Your task to perform on an android device: What's the weather? Image 0: 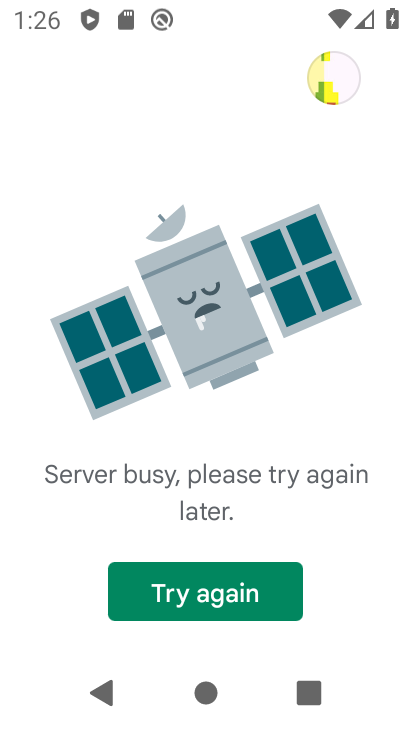
Step 0: press home button
Your task to perform on an android device: What's the weather? Image 1: 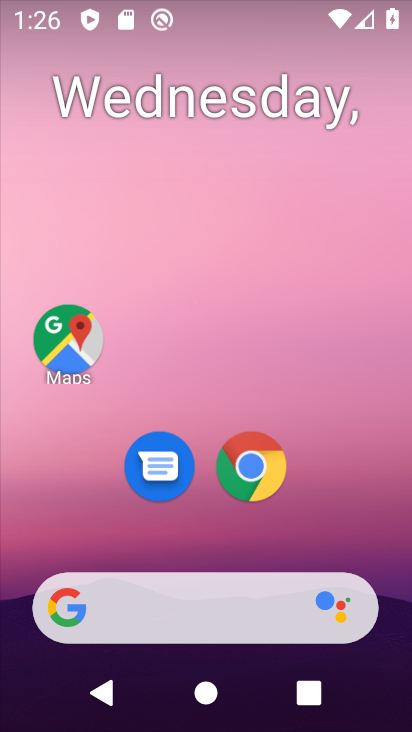
Step 1: drag from (1, 269) to (395, 270)
Your task to perform on an android device: What's the weather? Image 2: 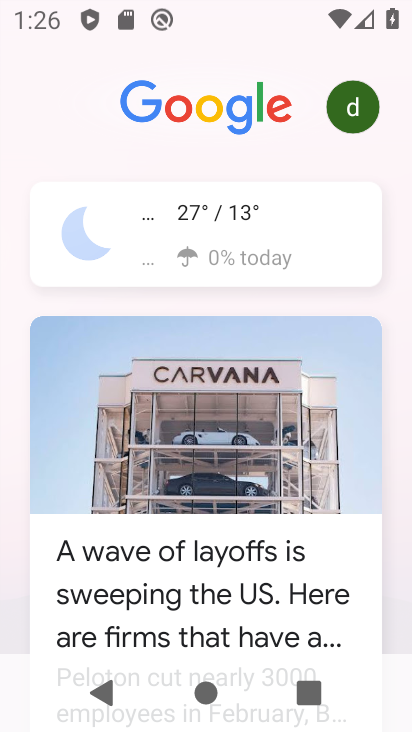
Step 2: click (258, 251)
Your task to perform on an android device: What's the weather? Image 3: 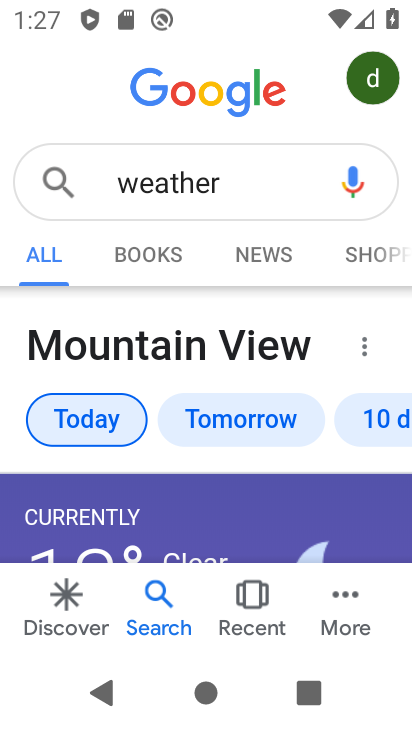
Step 3: task complete